Your task to perform on an android device: Open Google Chrome and click the shortcut for Amazon.com Image 0: 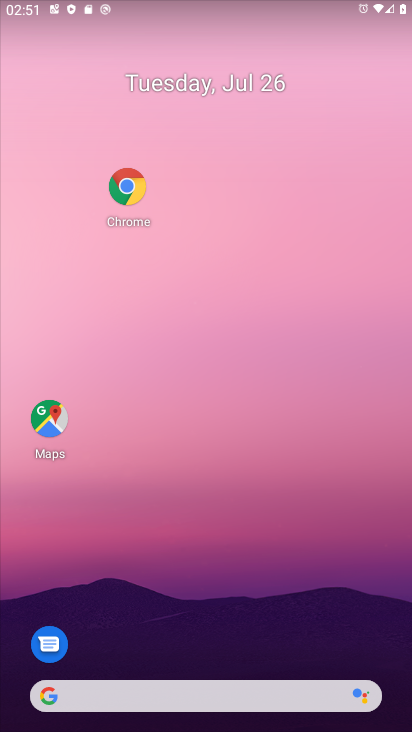
Step 0: drag from (268, 667) to (271, 199)
Your task to perform on an android device: Open Google Chrome and click the shortcut for Amazon.com Image 1: 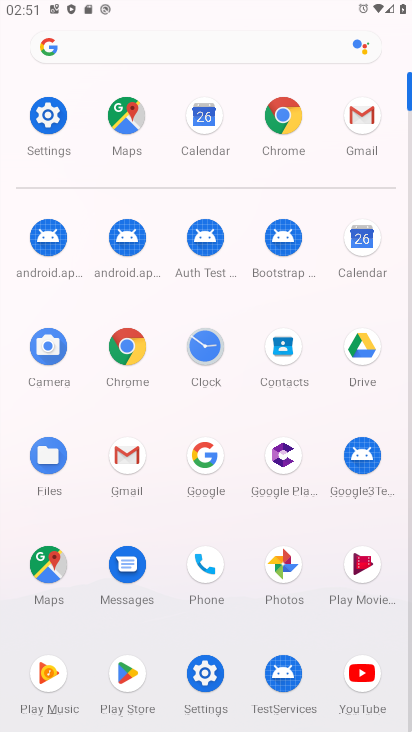
Step 1: click (136, 353)
Your task to perform on an android device: Open Google Chrome and click the shortcut for Amazon.com Image 2: 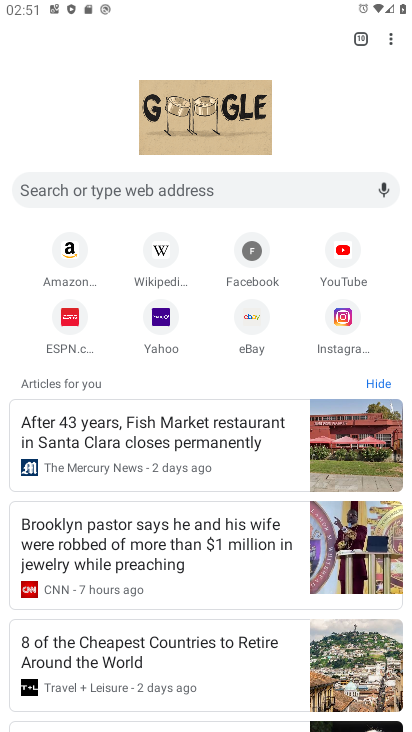
Step 2: click (70, 239)
Your task to perform on an android device: Open Google Chrome and click the shortcut for Amazon.com Image 3: 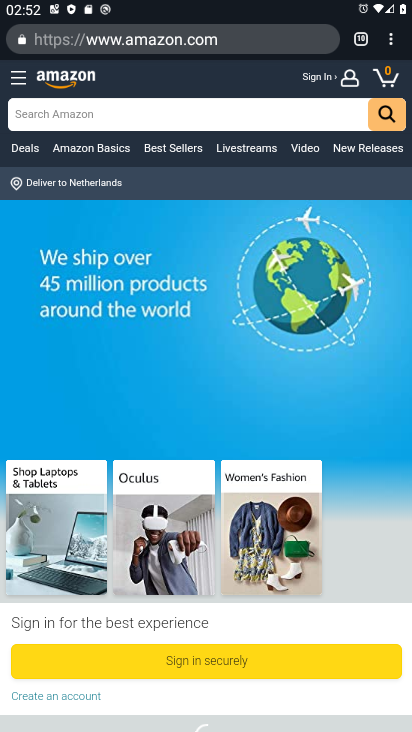
Step 3: task complete